Your task to perform on an android device: Open Google Chrome and open the bookmarks view Image 0: 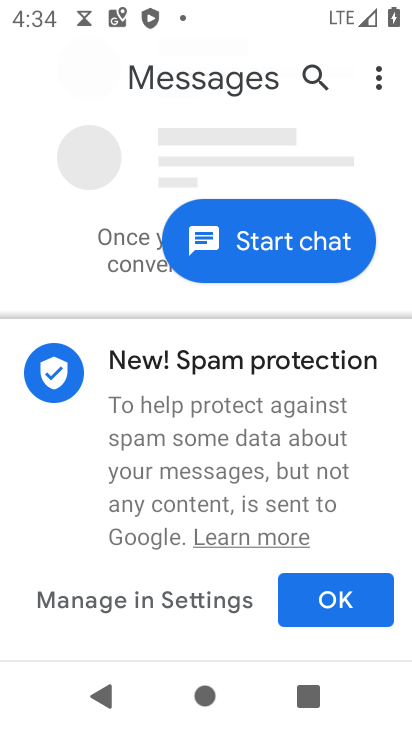
Step 0: press back button
Your task to perform on an android device: Open Google Chrome and open the bookmarks view Image 1: 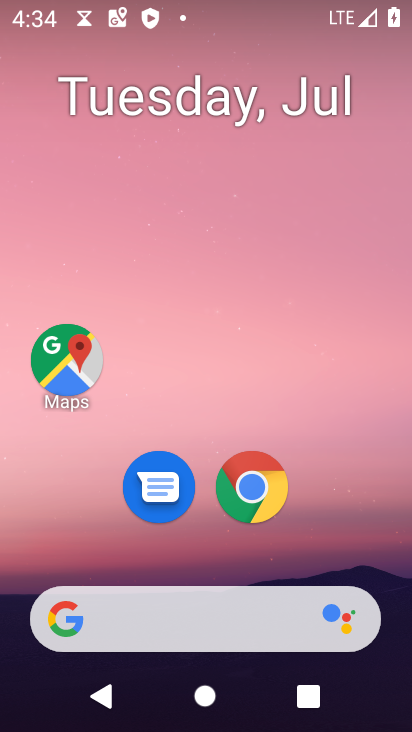
Step 1: click (257, 474)
Your task to perform on an android device: Open Google Chrome and open the bookmarks view Image 2: 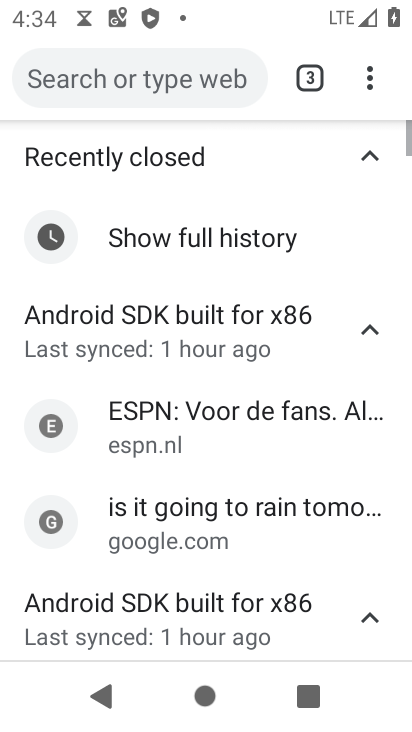
Step 2: task complete